Your task to perform on an android device: add a contact in the contacts app Image 0: 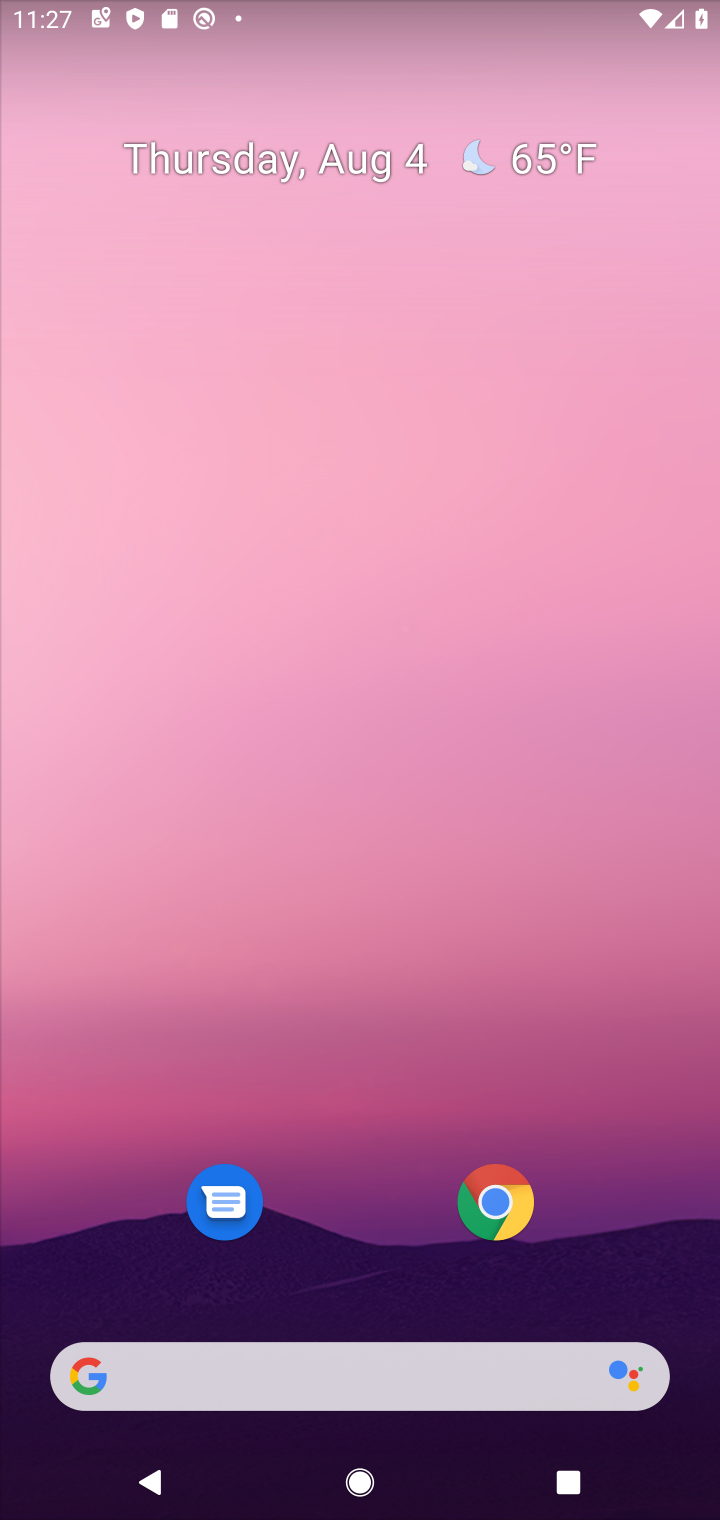
Step 0: drag from (360, 1044) to (427, 50)
Your task to perform on an android device: add a contact in the contacts app Image 1: 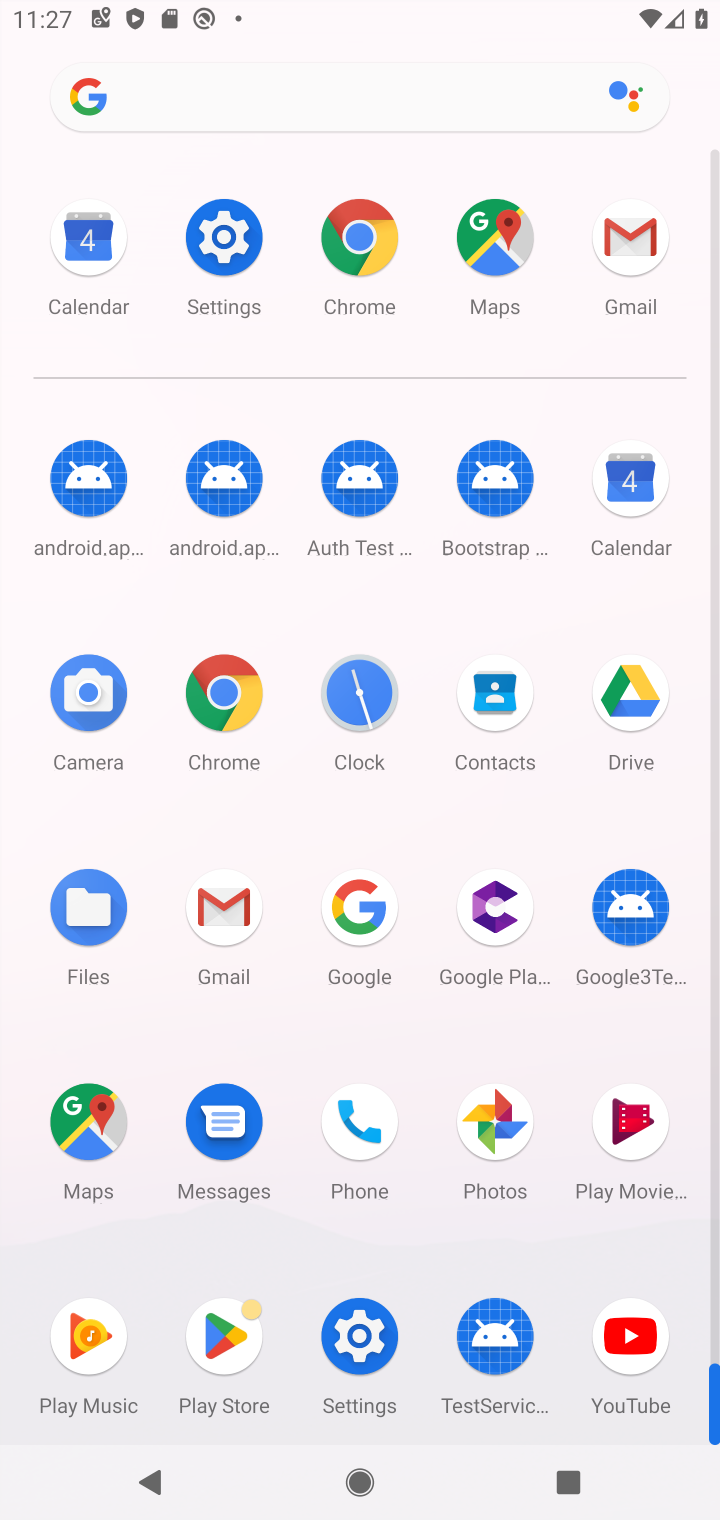
Step 1: click (499, 701)
Your task to perform on an android device: add a contact in the contacts app Image 2: 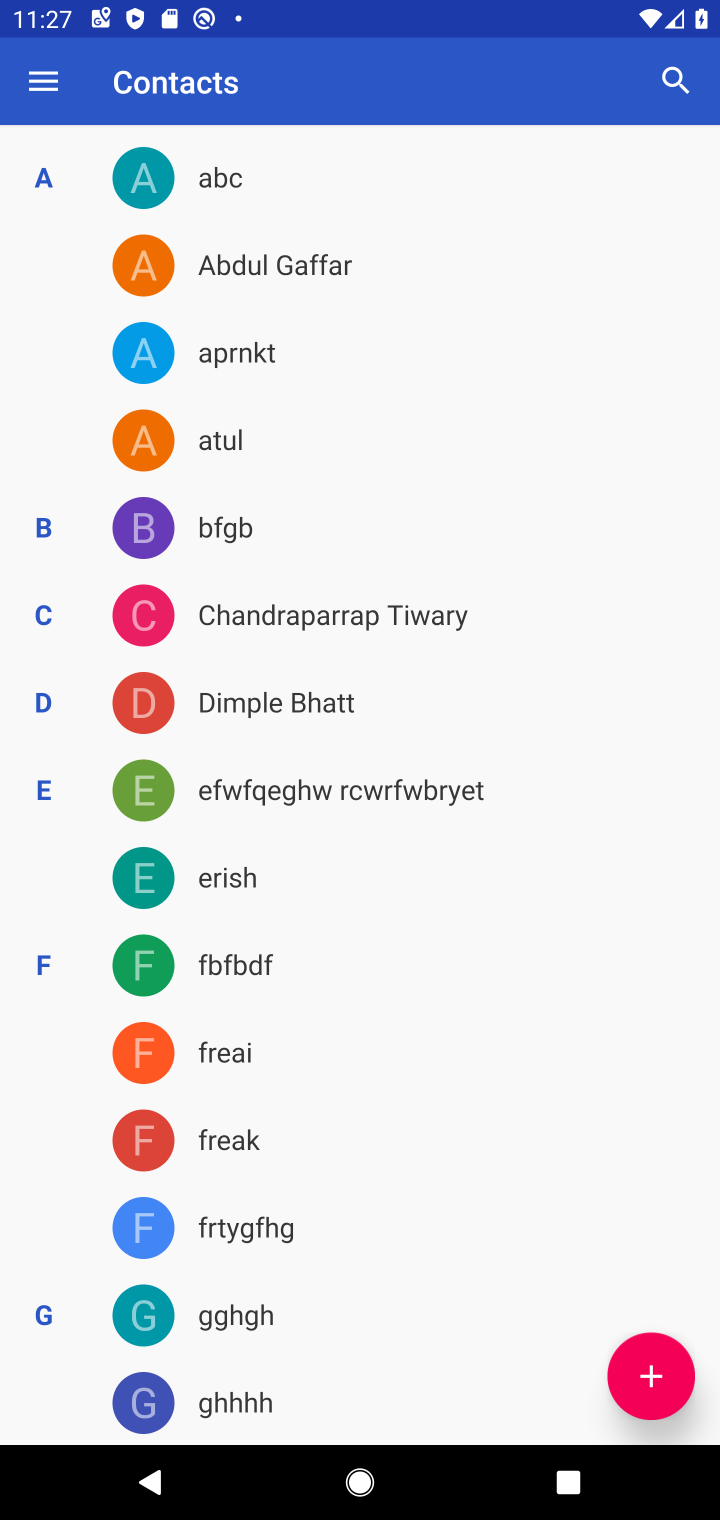
Step 2: click (650, 1380)
Your task to perform on an android device: add a contact in the contacts app Image 3: 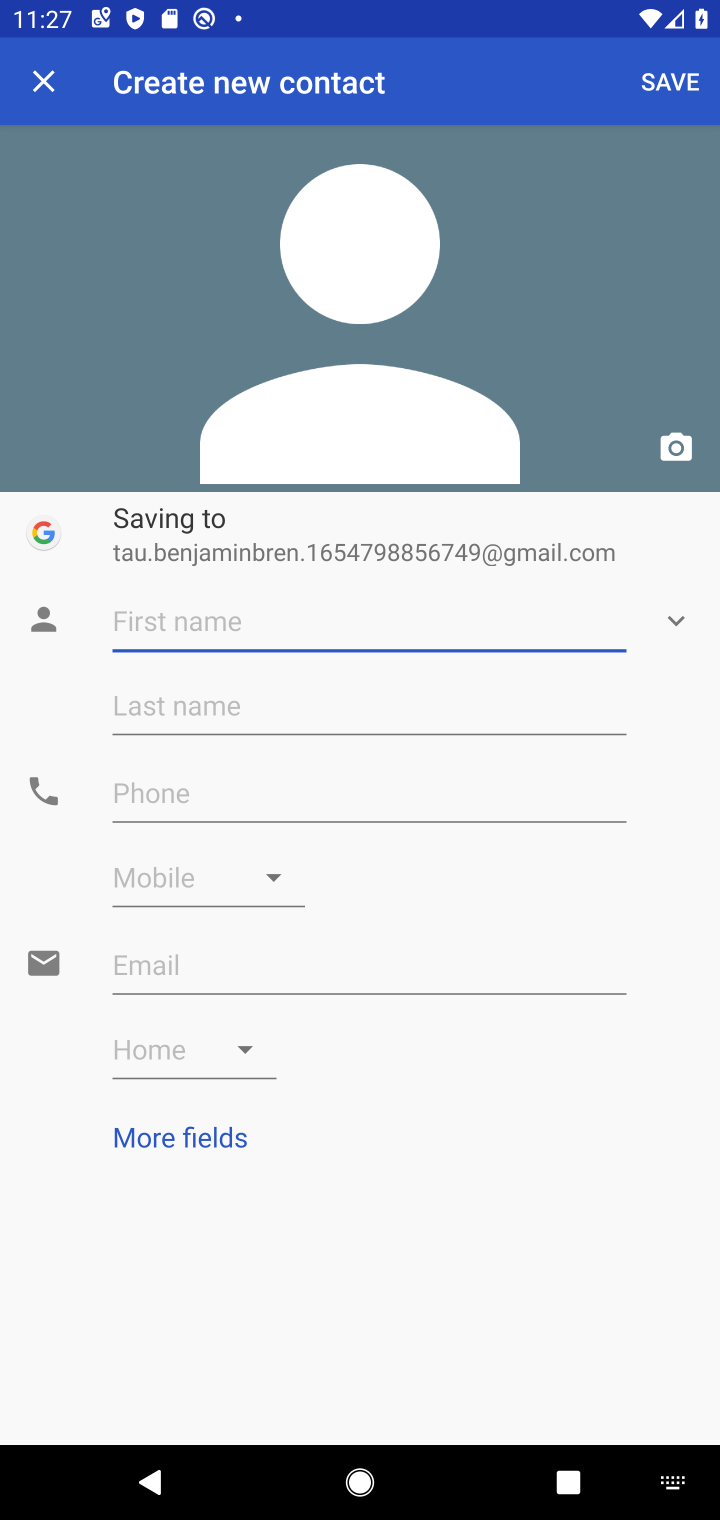
Step 3: click (276, 617)
Your task to perform on an android device: add a contact in the contacts app Image 4: 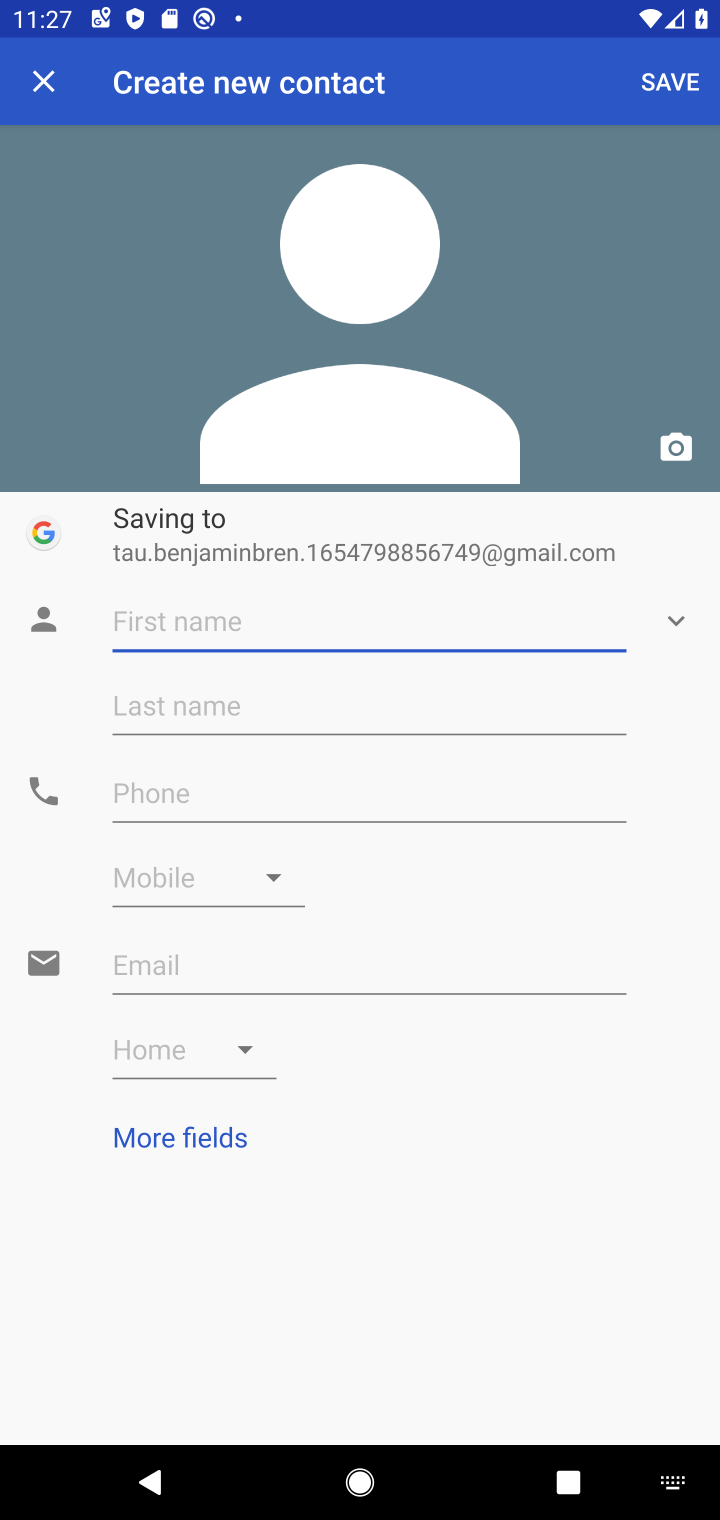
Step 4: type "gfgfc"
Your task to perform on an android device: add a contact in the contacts app Image 5: 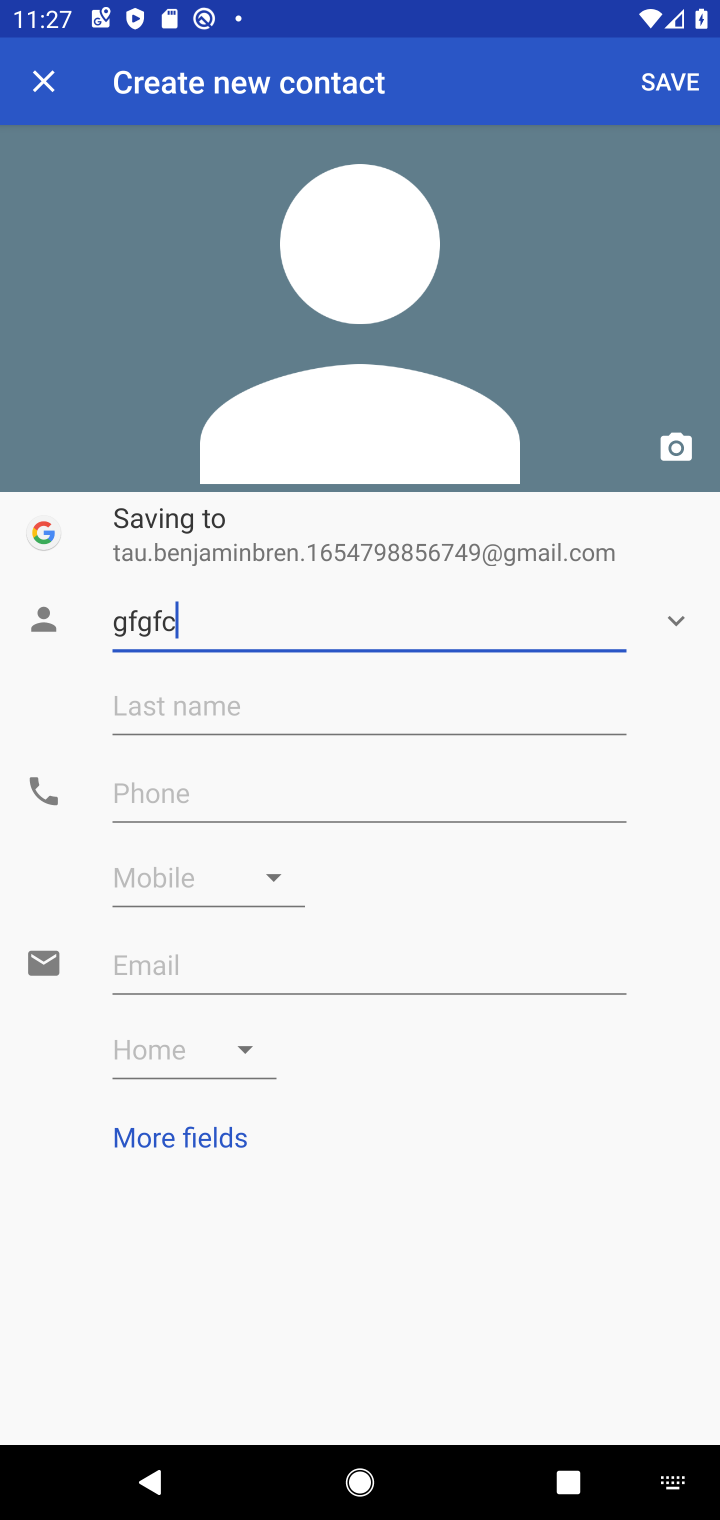
Step 5: click (192, 781)
Your task to perform on an android device: add a contact in the contacts app Image 6: 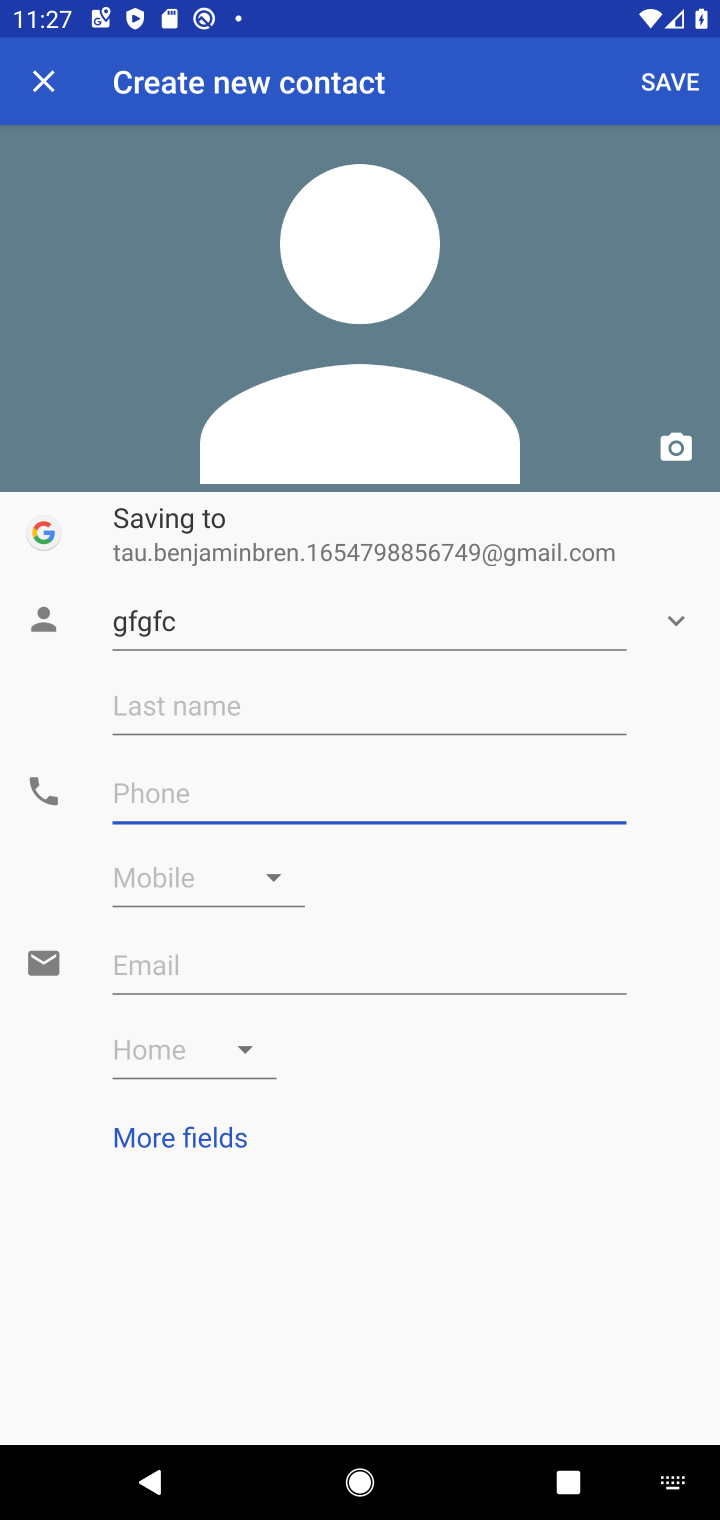
Step 6: type "8787"
Your task to perform on an android device: add a contact in the contacts app Image 7: 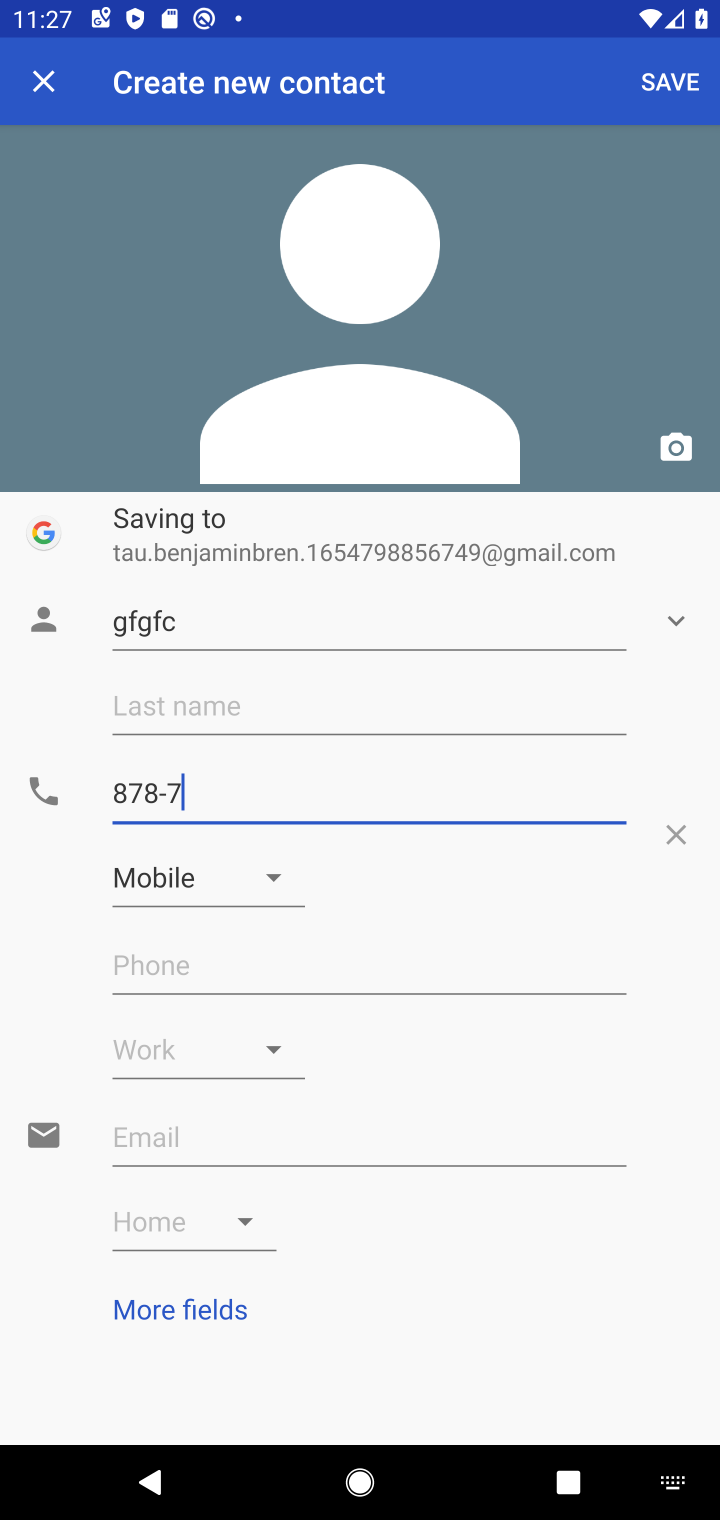
Step 7: click (678, 75)
Your task to perform on an android device: add a contact in the contacts app Image 8: 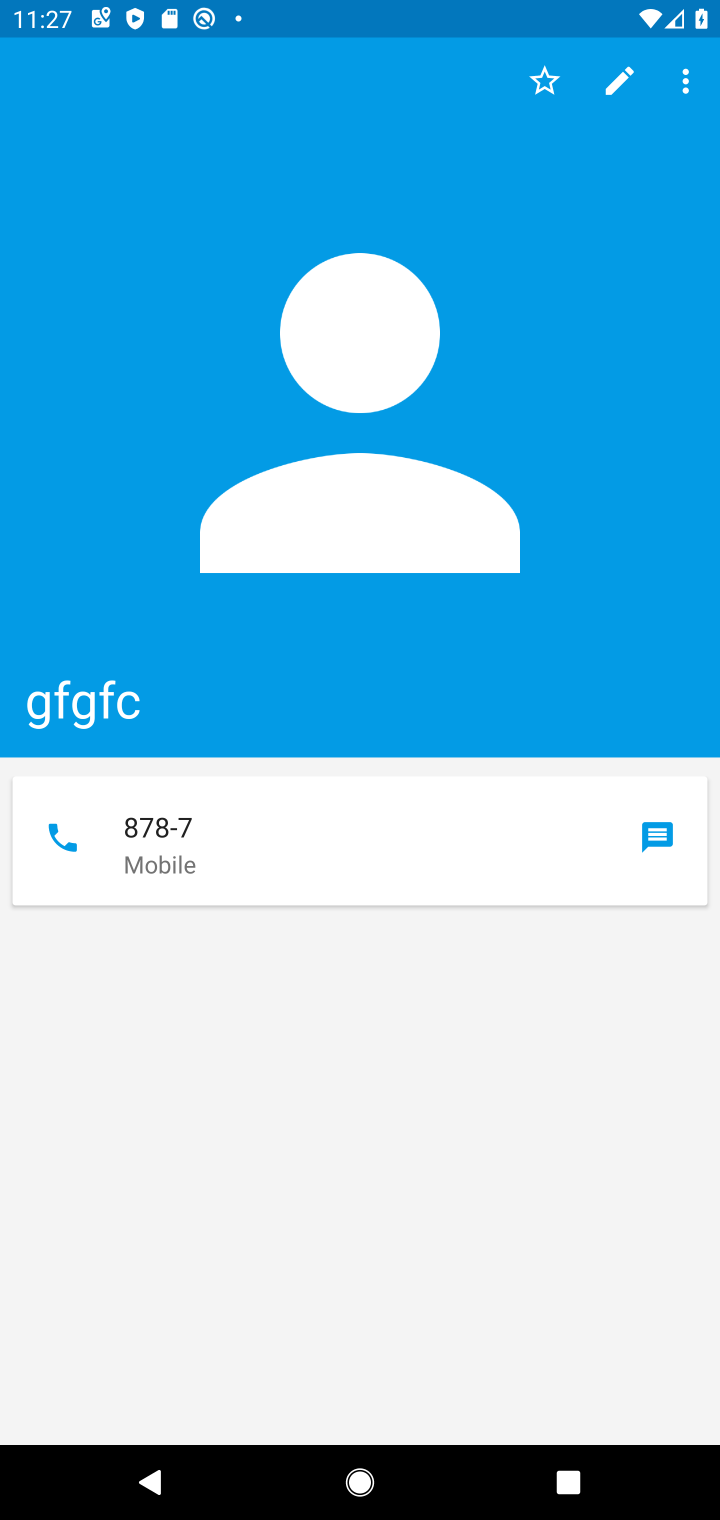
Step 8: task complete